Your task to perform on an android device: Play the last video I watched on Youtube Image 0: 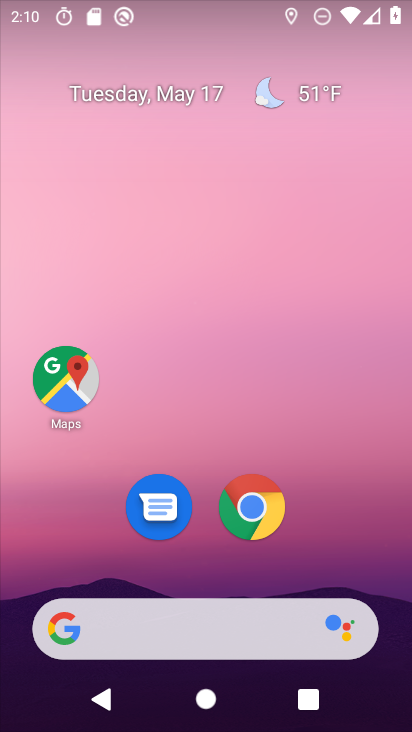
Step 0: drag from (201, 542) to (261, 131)
Your task to perform on an android device: Play the last video I watched on Youtube Image 1: 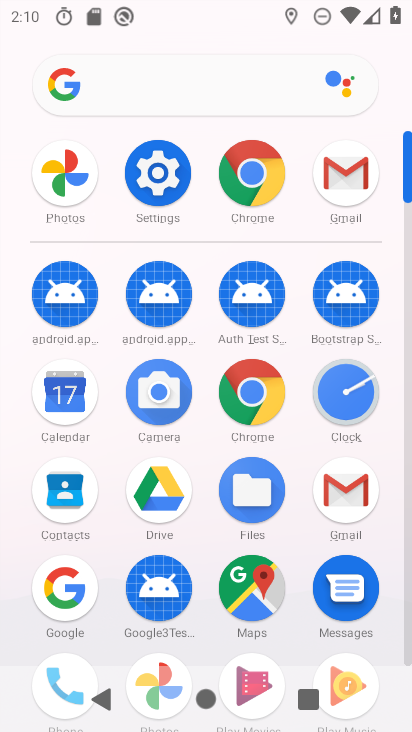
Step 1: drag from (213, 573) to (261, 185)
Your task to perform on an android device: Play the last video I watched on Youtube Image 2: 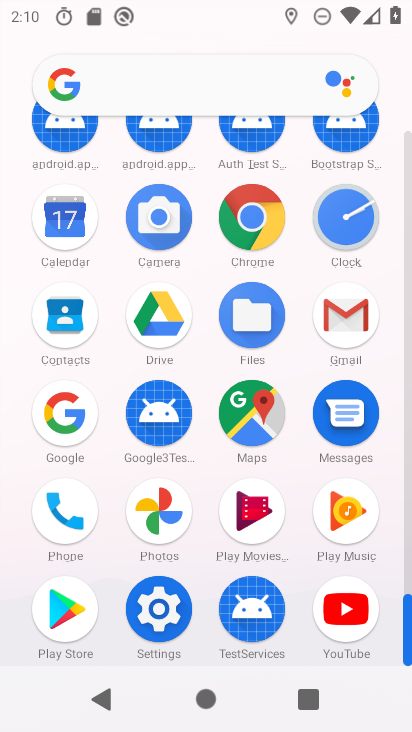
Step 2: click (345, 620)
Your task to perform on an android device: Play the last video I watched on Youtube Image 3: 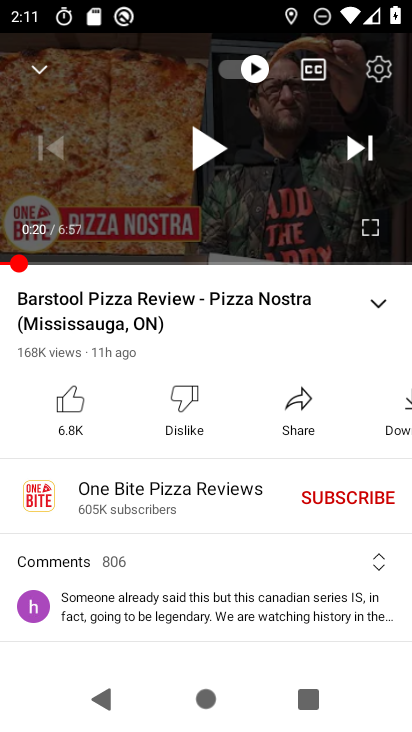
Step 3: click (211, 152)
Your task to perform on an android device: Play the last video I watched on Youtube Image 4: 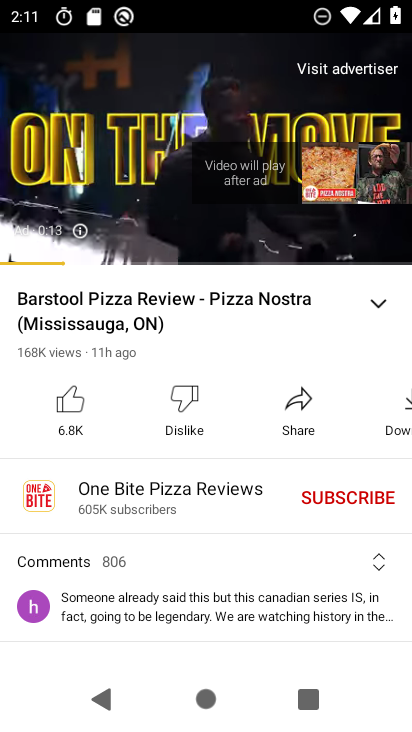
Step 4: task complete